Your task to perform on an android device: Search for good pizza restaurants on Maps Image 0: 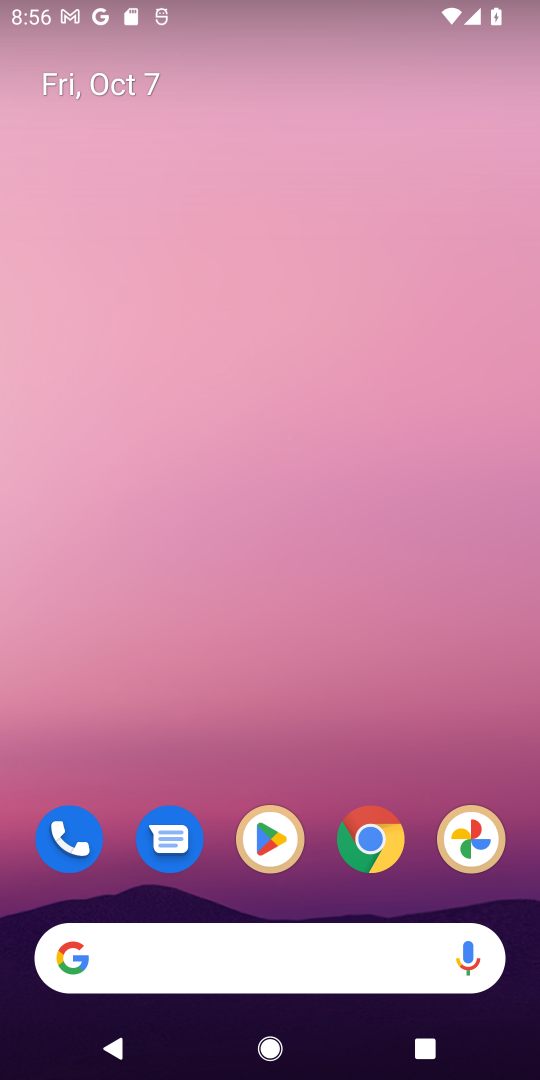
Step 0: click (376, 850)
Your task to perform on an android device: Search for good pizza restaurants on Maps Image 1: 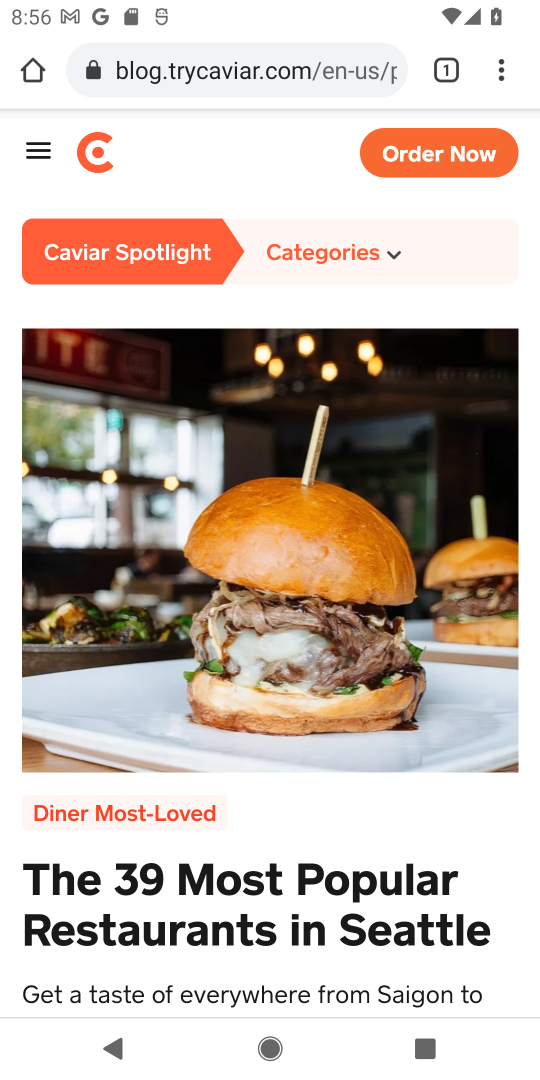
Step 1: click (188, 65)
Your task to perform on an android device: Search for good pizza restaurants on Maps Image 2: 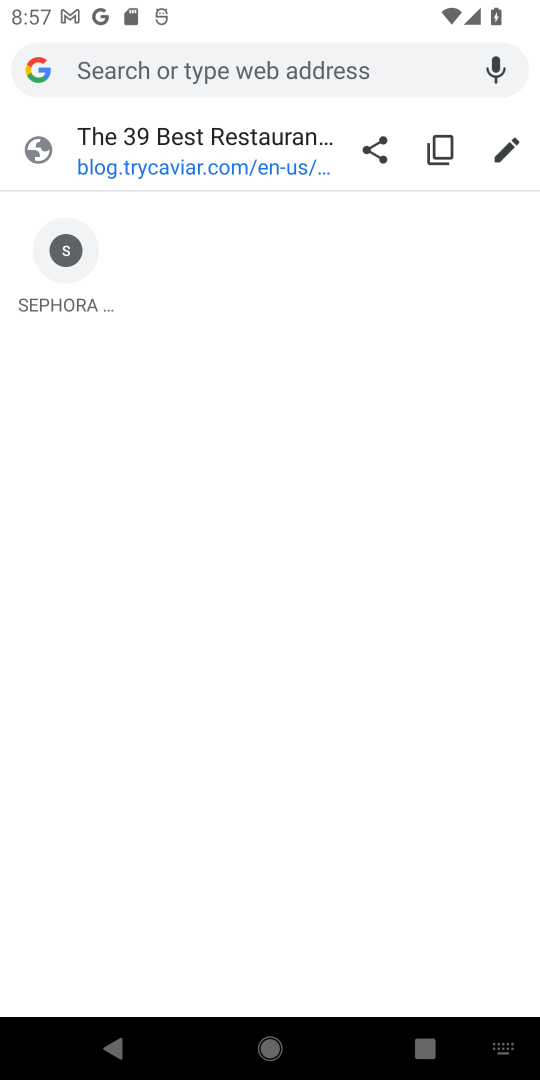
Step 2: type "good pizza resturant "
Your task to perform on an android device: Search for good pizza restaurants on Maps Image 3: 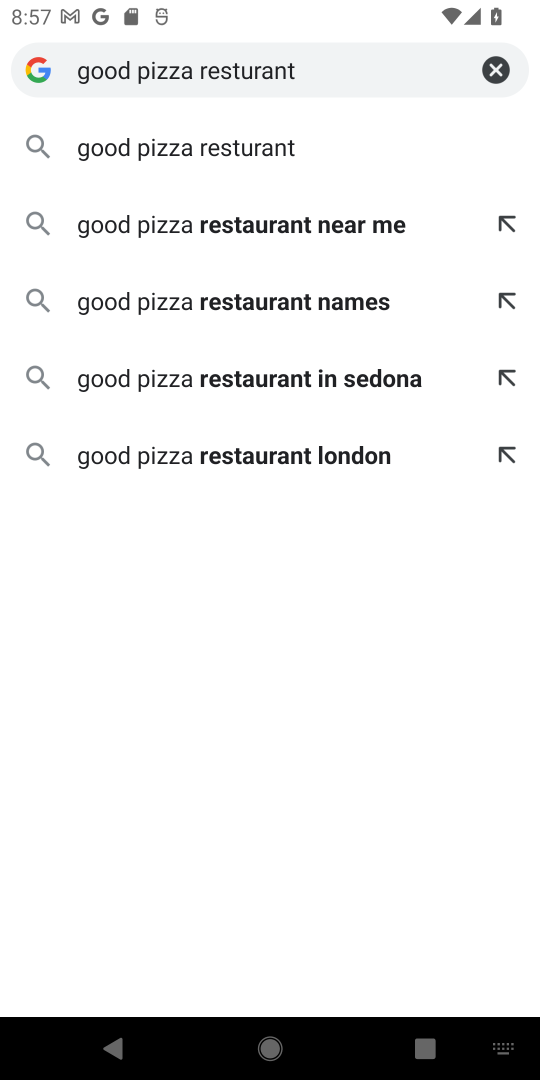
Step 3: click (231, 225)
Your task to perform on an android device: Search for good pizza restaurants on Maps Image 4: 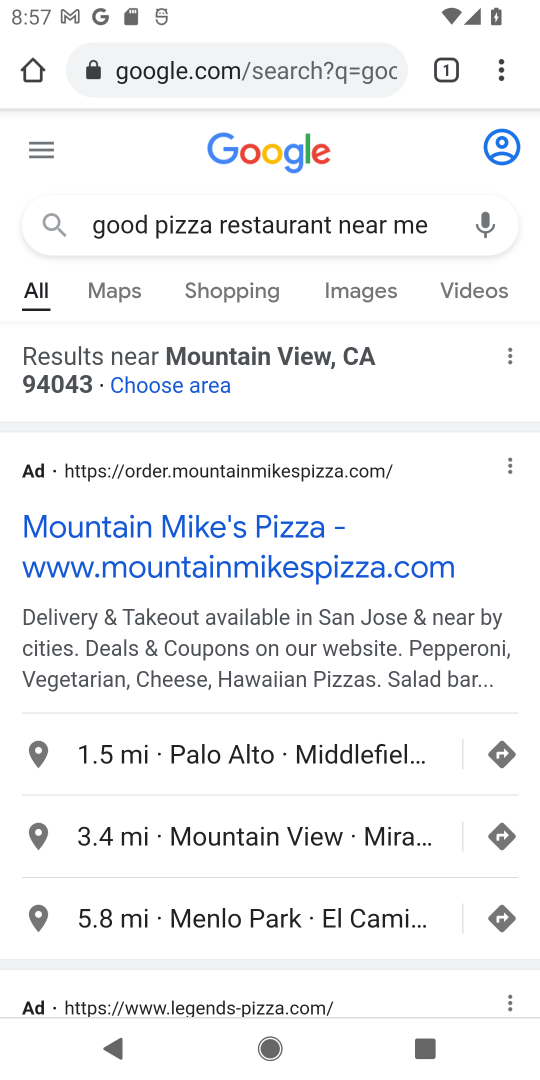
Step 4: click (98, 297)
Your task to perform on an android device: Search for good pizza restaurants on Maps Image 5: 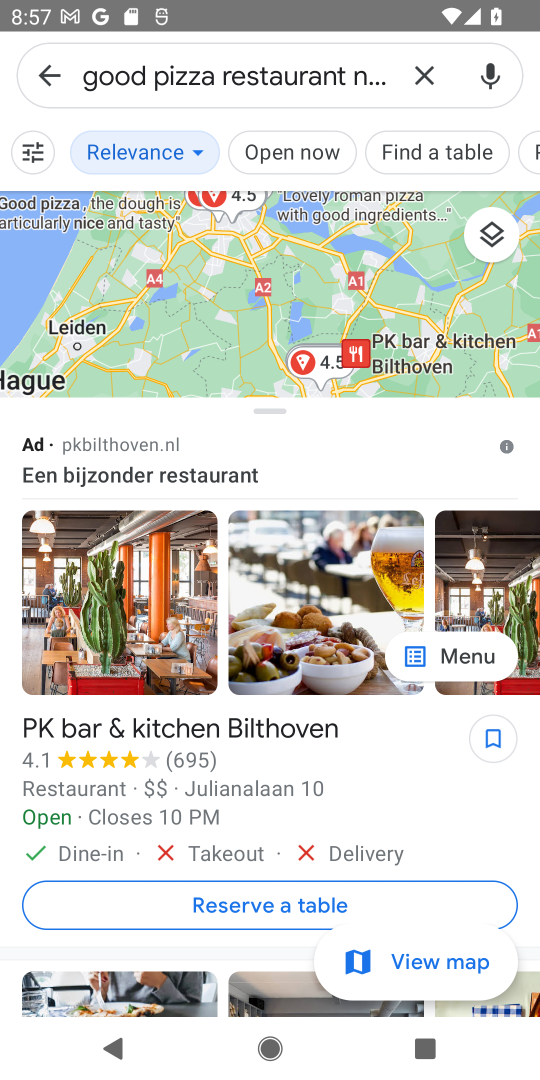
Step 5: task complete